Your task to perform on an android device: Open battery settings Image 0: 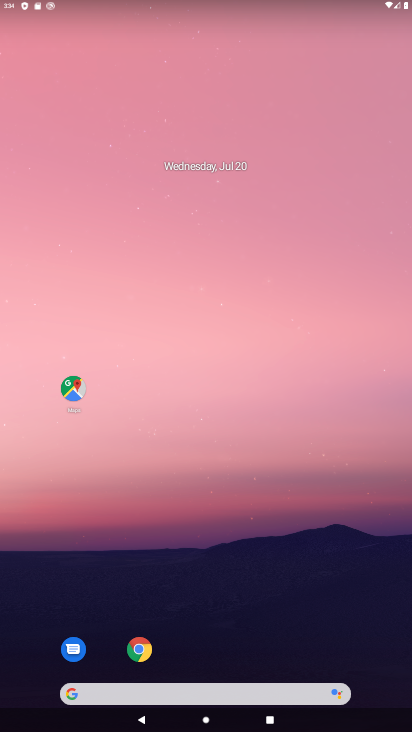
Step 0: drag from (221, 531) to (221, 262)
Your task to perform on an android device: Open battery settings Image 1: 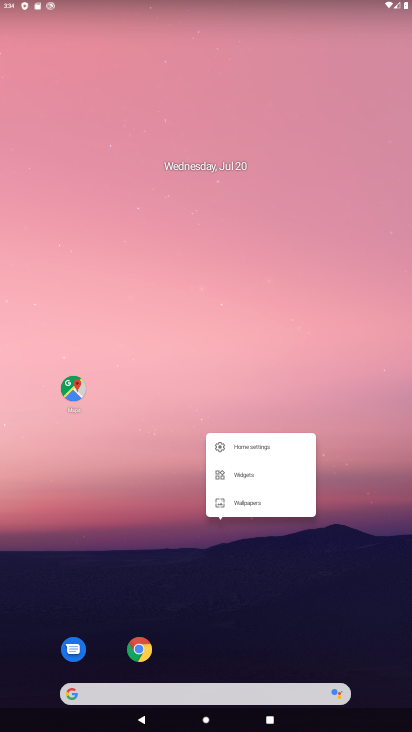
Step 1: drag from (200, 682) to (135, 220)
Your task to perform on an android device: Open battery settings Image 2: 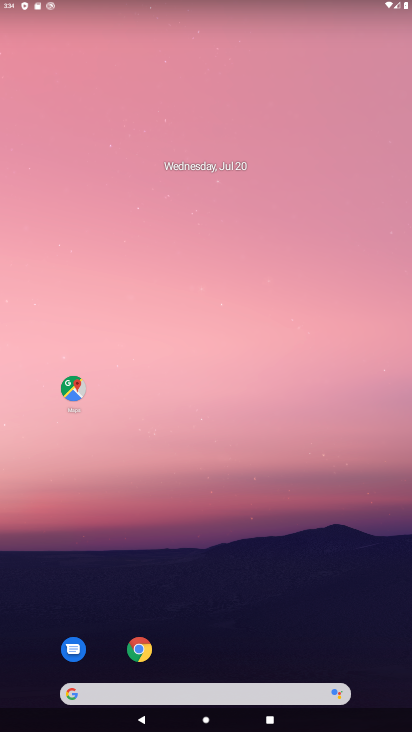
Step 2: drag from (222, 677) to (173, 155)
Your task to perform on an android device: Open battery settings Image 3: 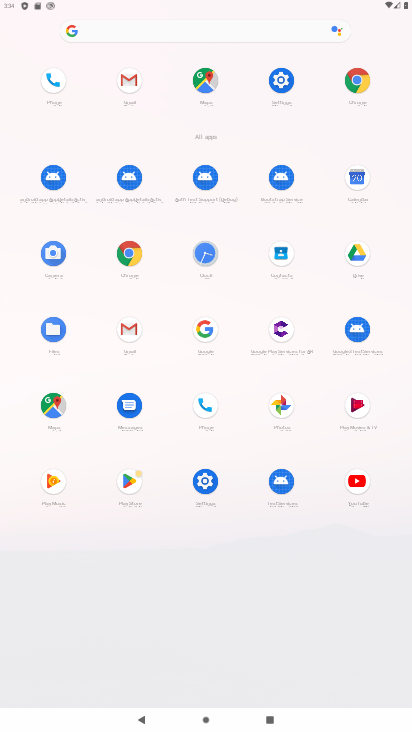
Step 3: click (281, 75)
Your task to perform on an android device: Open battery settings Image 4: 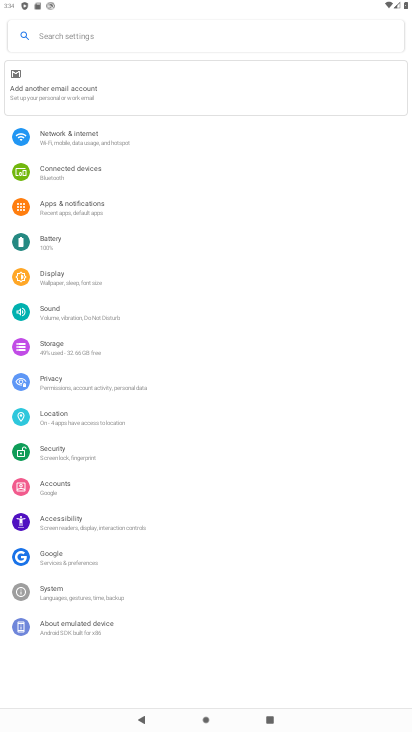
Step 4: click (59, 246)
Your task to perform on an android device: Open battery settings Image 5: 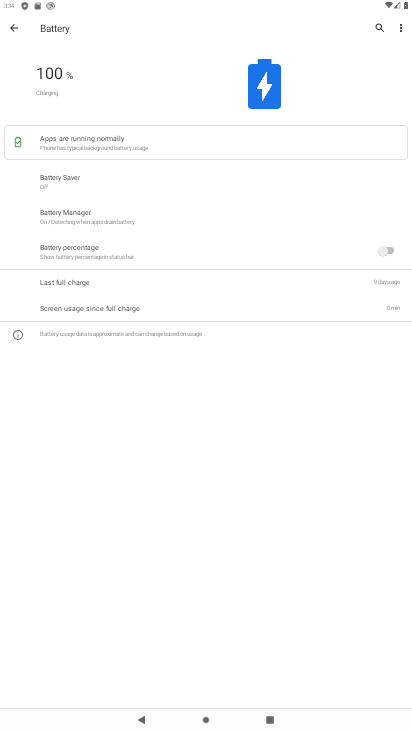
Step 5: task complete